Your task to perform on an android device: open app "Adobe Acrobat Reader" (install if not already installed) and go to login screen Image 0: 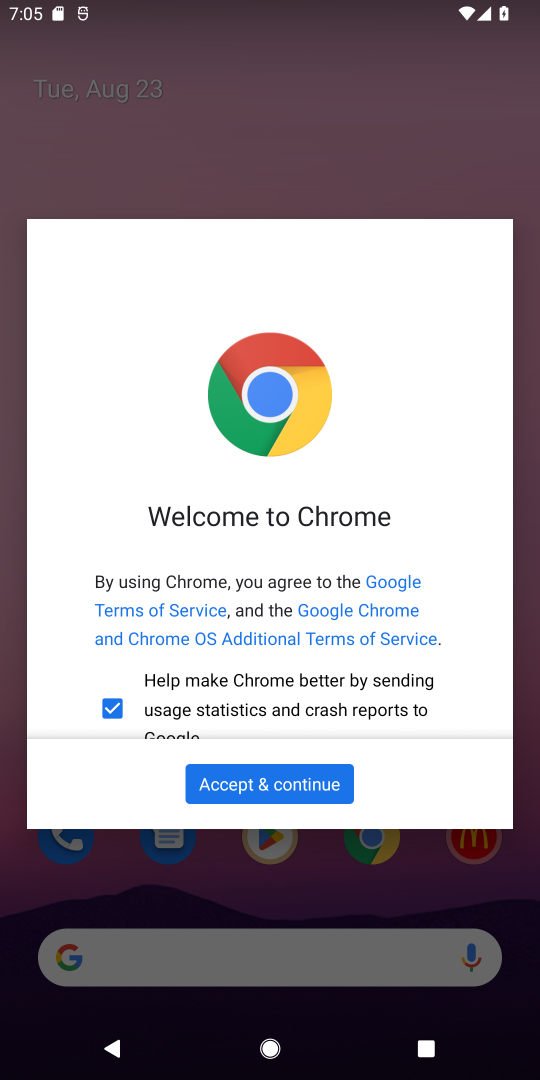
Step 0: press home button
Your task to perform on an android device: open app "Adobe Acrobat Reader" (install if not already installed) and go to login screen Image 1: 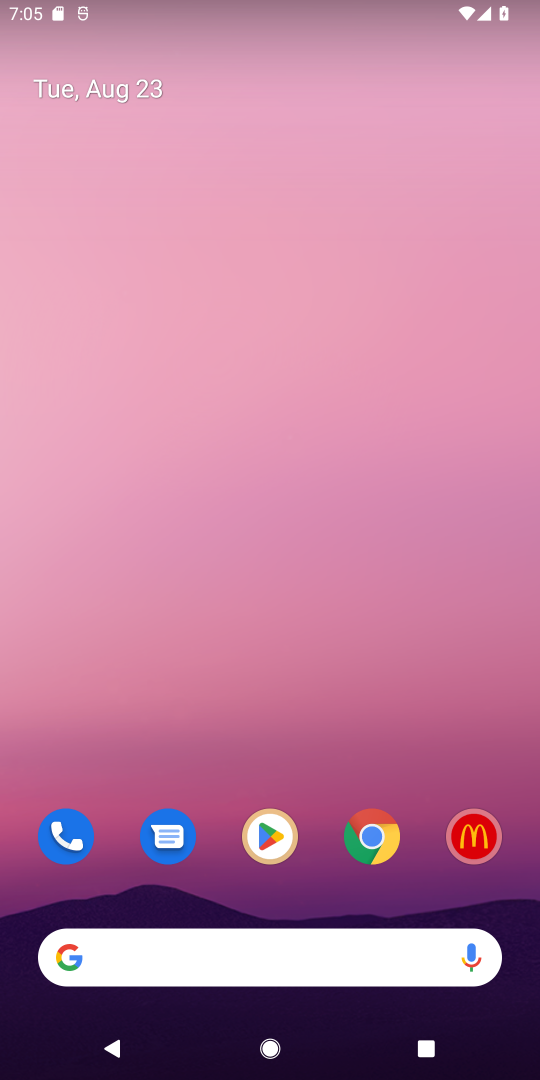
Step 1: click (267, 838)
Your task to perform on an android device: open app "Adobe Acrobat Reader" (install if not already installed) and go to login screen Image 2: 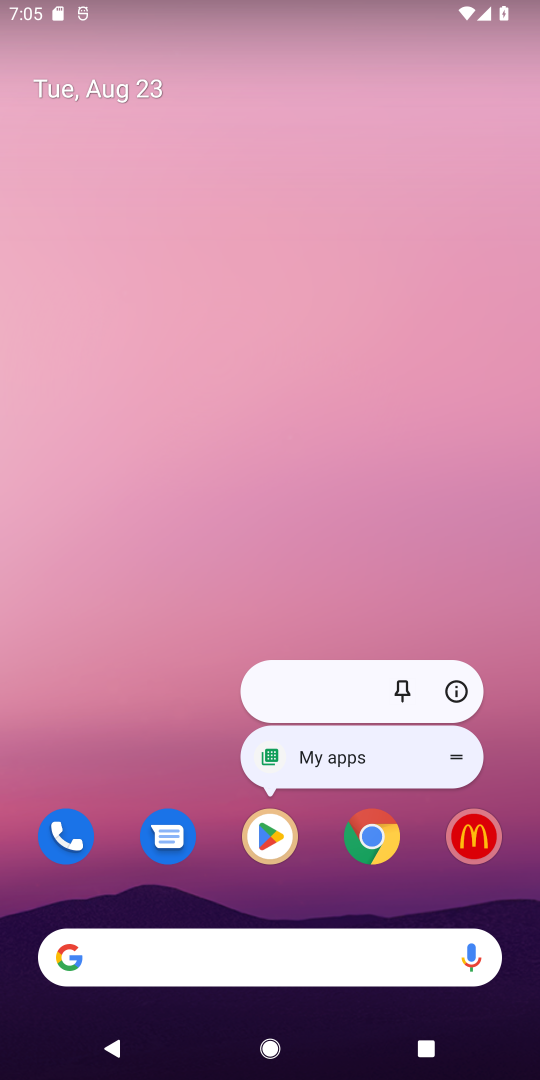
Step 2: click (269, 835)
Your task to perform on an android device: open app "Adobe Acrobat Reader" (install if not already installed) and go to login screen Image 3: 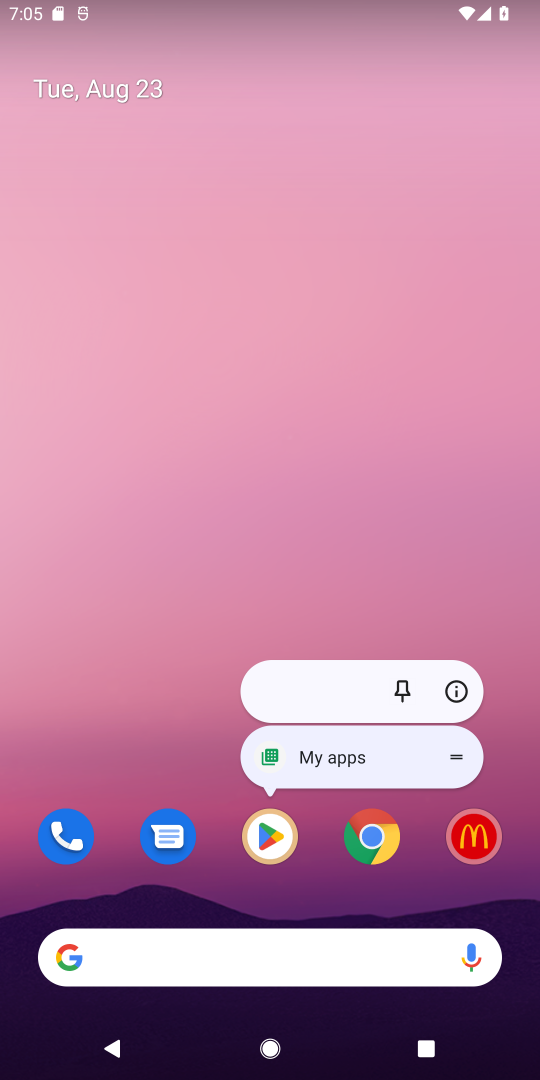
Step 3: click (269, 834)
Your task to perform on an android device: open app "Adobe Acrobat Reader" (install if not already installed) and go to login screen Image 4: 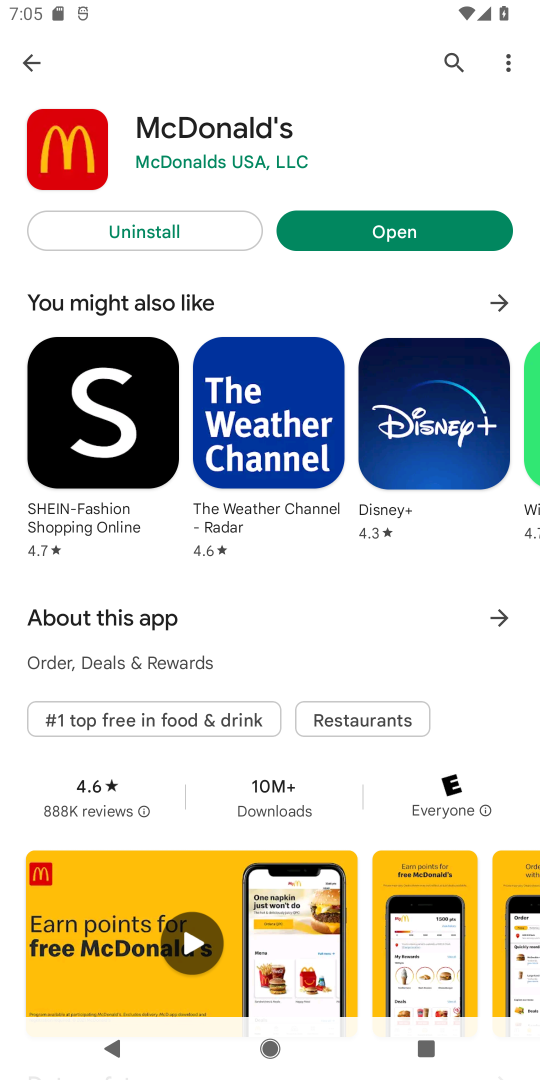
Step 4: click (450, 59)
Your task to perform on an android device: open app "Adobe Acrobat Reader" (install if not already installed) and go to login screen Image 5: 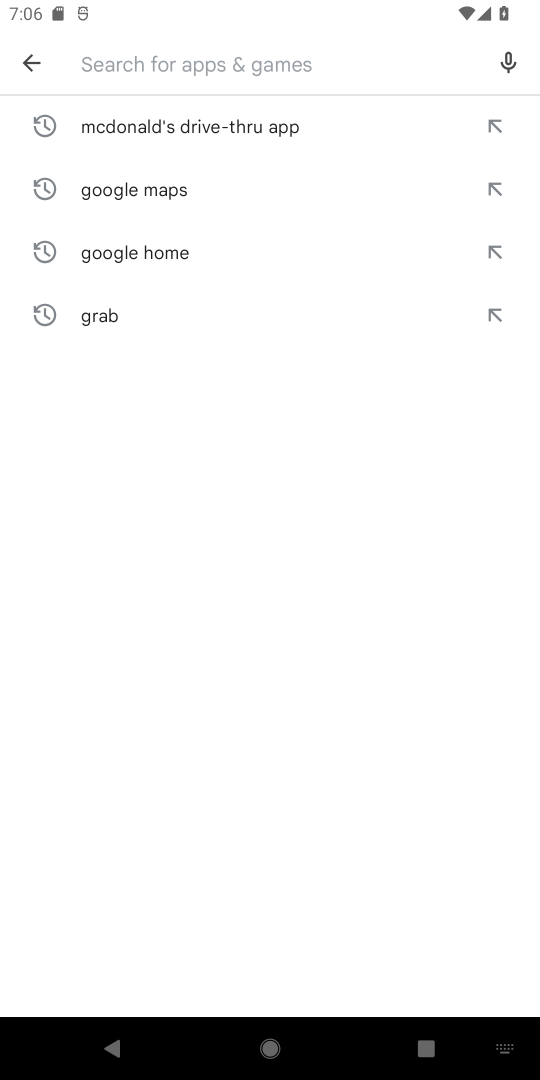
Step 5: type "Adobe Acrobat Reader"
Your task to perform on an android device: open app "Adobe Acrobat Reader" (install if not already installed) and go to login screen Image 6: 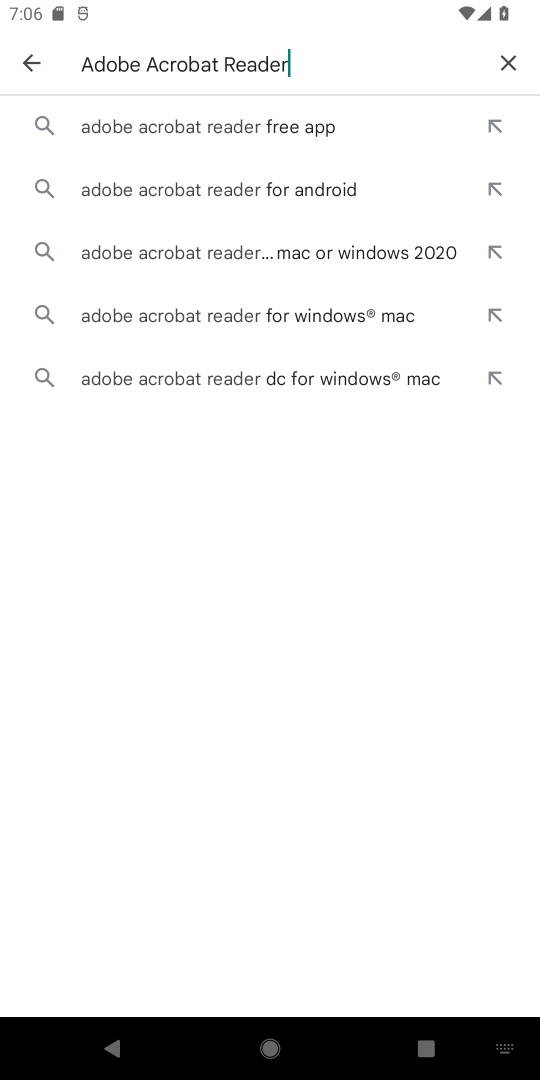
Step 6: click (258, 120)
Your task to perform on an android device: open app "Adobe Acrobat Reader" (install if not already installed) and go to login screen Image 7: 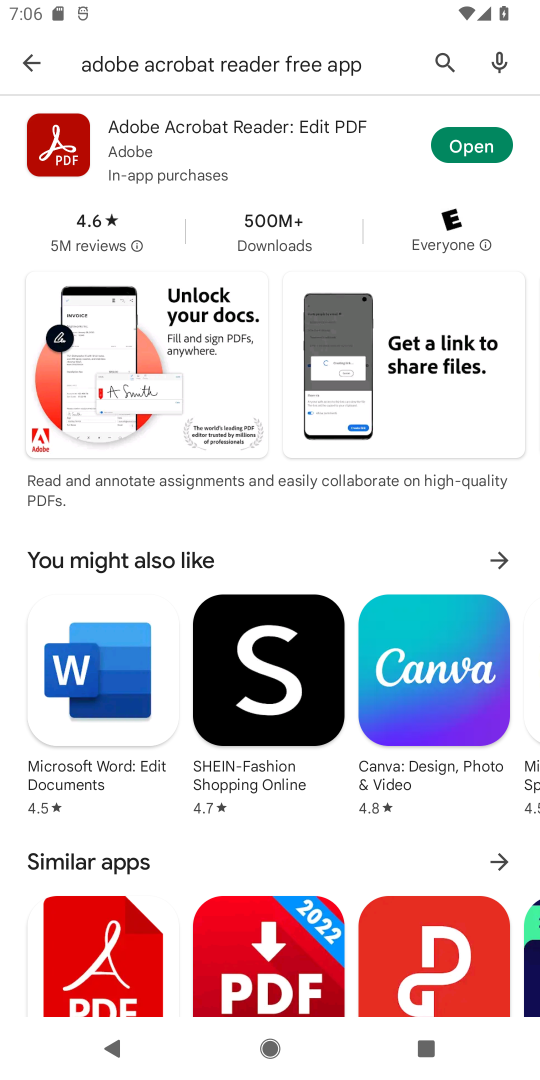
Step 7: click (455, 152)
Your task to perform on an android device: open app "Adobe Acrobat Reader" (install if not already installed) and go to login screen Image 8: 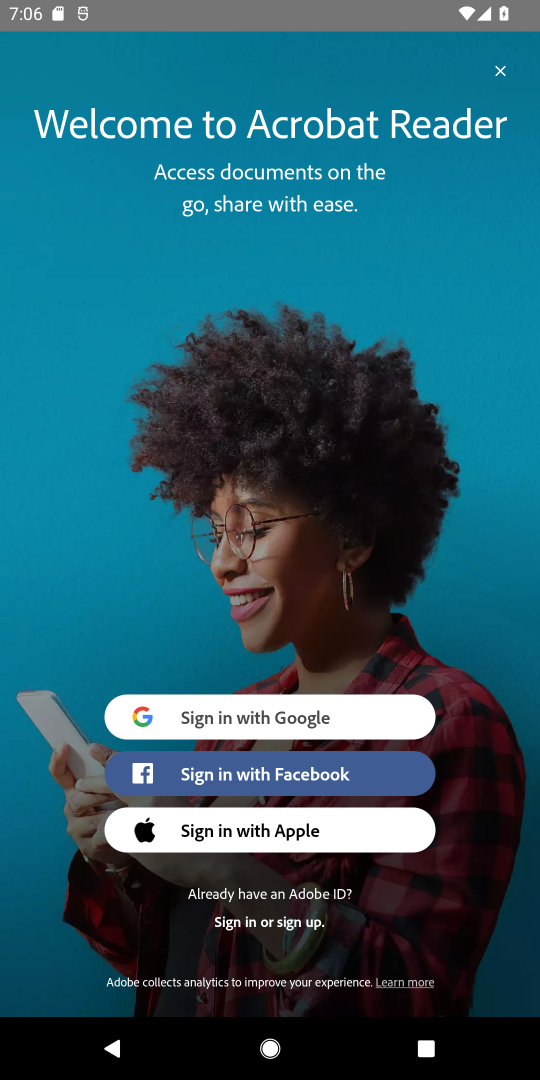
Step 8: task complete